Your task to perform on an android device: add a label to a message in the gmail app Image 0: 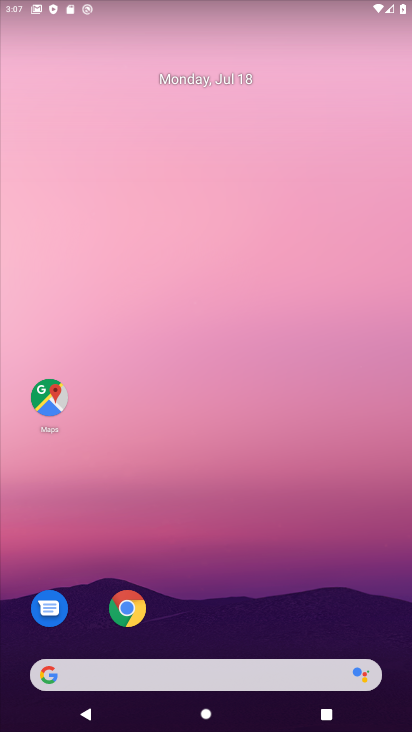
Step 0: click (283, 252)
Your task to perform on an android device: add a label to a message in the gmail app Image 1: 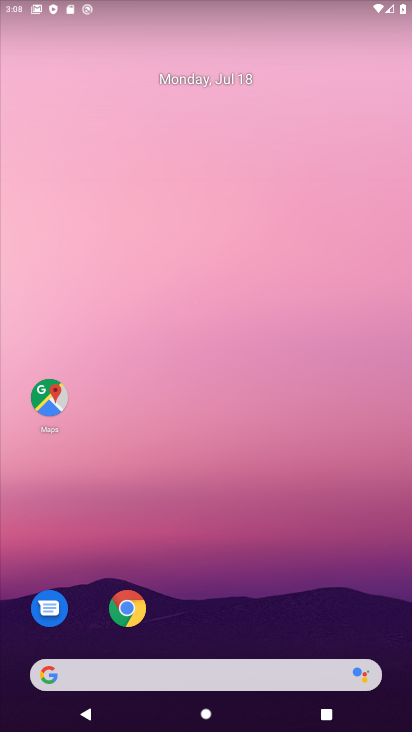
Step 1: drag from (287, 593) to (259, 37)
Your task to perform on an android device: add a label to a message in the gmail app Image 2: 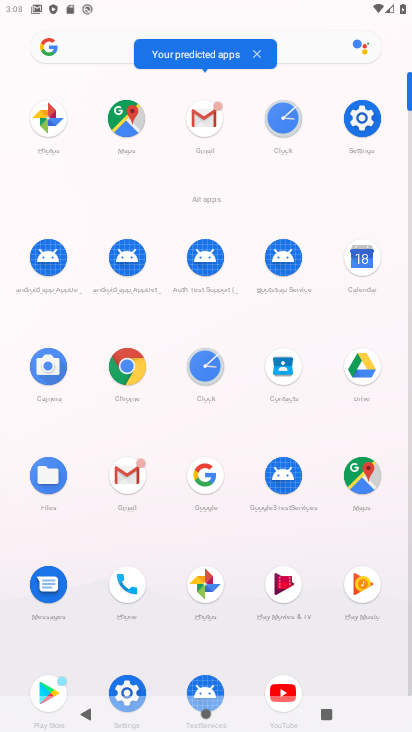
Step 2: click (192, 112)
Your task to perform on an android device: add a label to a message in the gmail app Image 3: 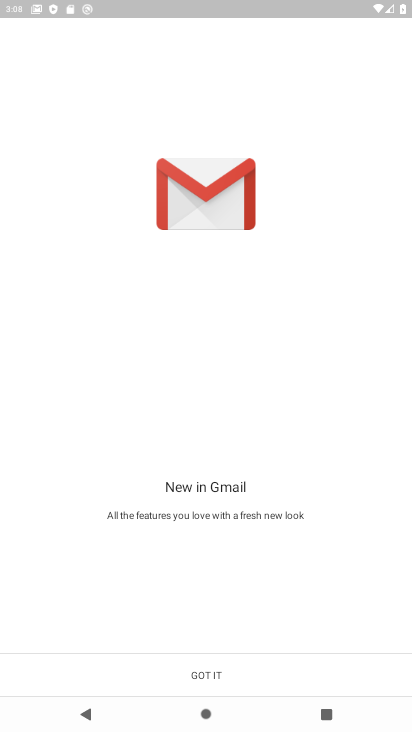
Step 3: click (226, 660)
Your task to perform on an android device: add a label to a message in the gmail app Image 4: 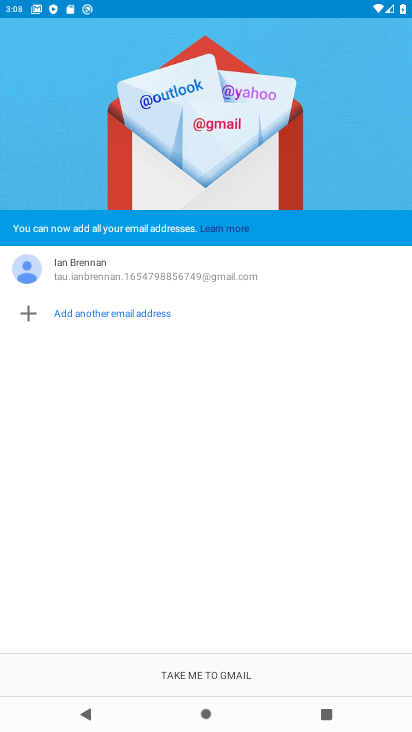
Step 4: click (192, 667)
Your task to perform on an android device: add a label to a message in the gmail app Image 5: 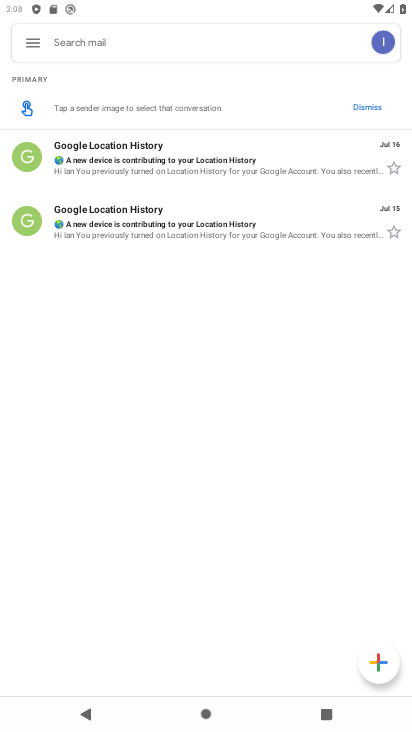
Step 5: click (182, 154)
Your task to perform on an android device: add a label to a message in the gmail app Image 6: 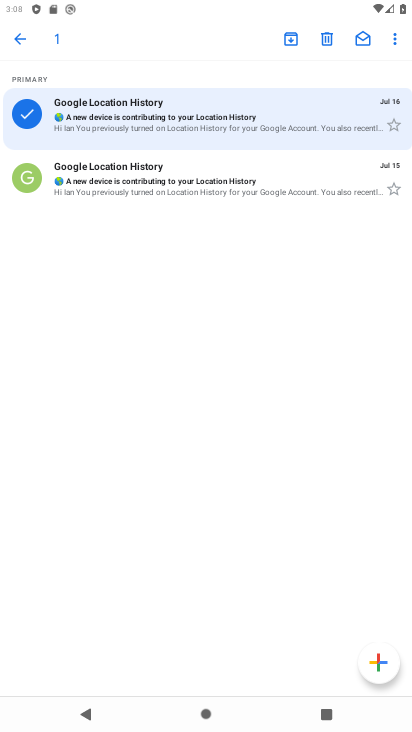
Step 6: click (392, 37)
Your task to perform on an android device: add a label to a message in the gmail app Image 7: 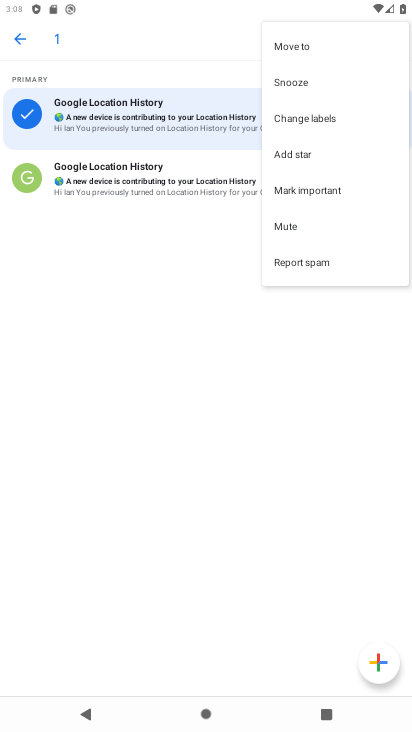
Step 7: task complete